Your task to perform on an android device: turn on showing notifications on the lock screen Image 0: 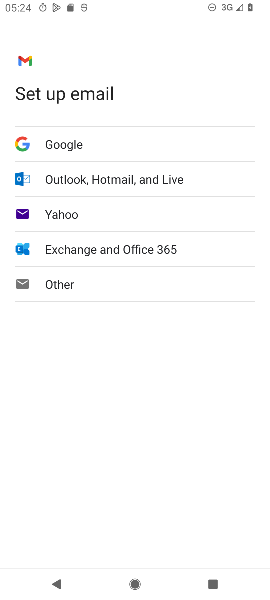
Step 0: press home button
Your task to perform on an android device: turn on showing notifications on the lock screen Image 1: 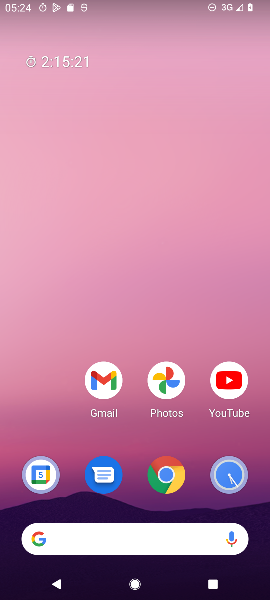
Step 1: drag from (64, 436) to (50, 234)
Your task to perform on an android device: turn on showing notifications on the lock screen Image 2: 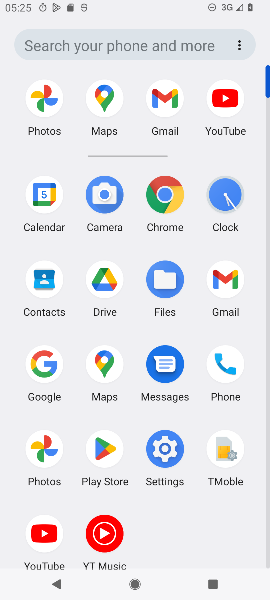
Step 2: click (165, 448)
Your task to perform on an android device: turn on showing notifications on the lock screen Image 3: 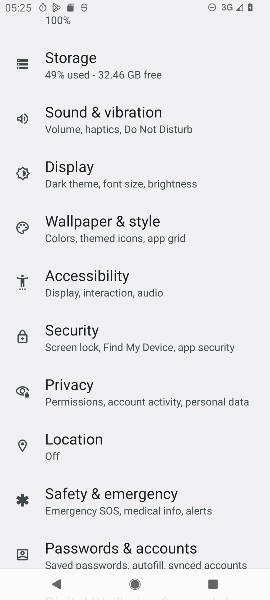
Step 3: drag from (227, 186) to (240, 289)
Your task to perform on an android device: turn on showing notifications on the lock screen Image 4: 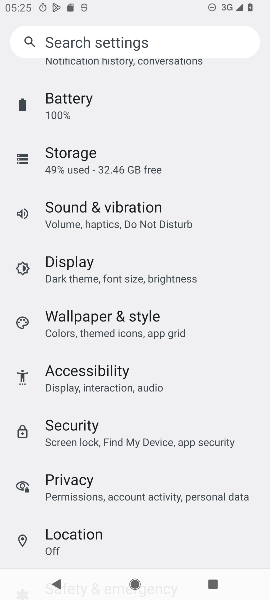
Step 4: drag from (227, 149) to (234, 254)
Your task to perform on an android device: turn on showing notifications on the lock screen Image 5: 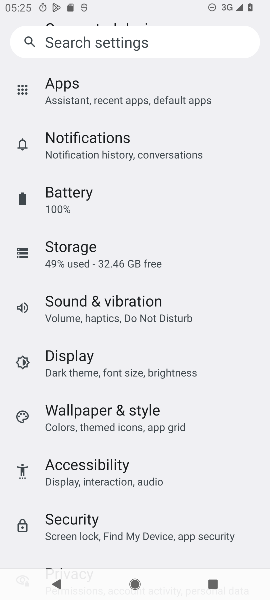
Step 5: drag from (232, 162) to (226, 253)
Your task to perform on an android device: turn on showing notifications on the lock screen Image 6: 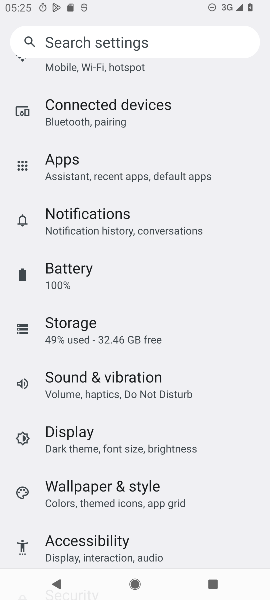
Step 6: drag from (229, 123) to (234, 224)
Your task to perform on an android device: turn on showing notifications on the lock screen Image 7: 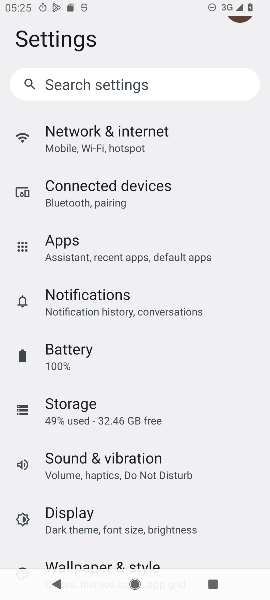
Step 7: drag from (242, 122) to (242, 291)
Your task to perform on an android device: turn on showing notifications on the lock screen Image 8: 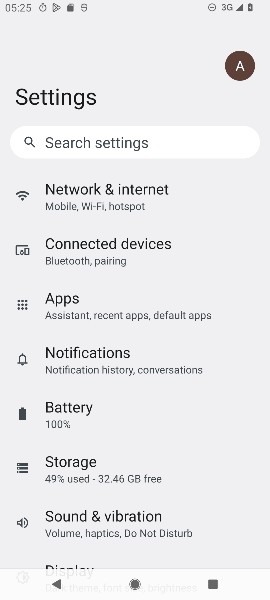
Step 8: click (116, 353)
Your task to perform on an android device: turn on showing notifications on the lock screen Image 9: 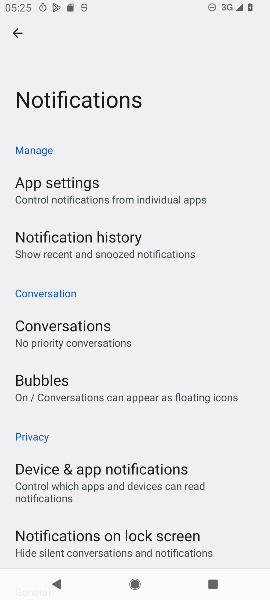
Step 9: drag from (215, 353) to (222, 256)
Your task to perform on an android device: turn on showing notifications on the lock screen Image 10: 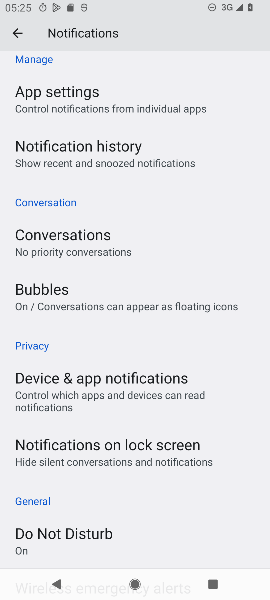
Step 10: drag from (234, 405) to (237, 341)
Your task to perform on an android device: turn on showing notifications on the lock screen Image 11: 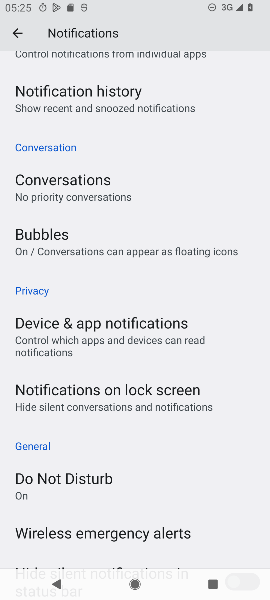
Step 11: drag from (218, 447) to (224, 345)
Your task to perform on an android device: turn on showing notifications on the lock screen Image 12: 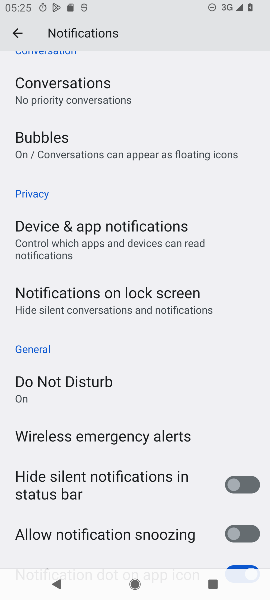
Step 12: drag from (208, 410) to (217, 327)
Your task to perform on an android device: turn on showing notifications on the lock screen Image 13: 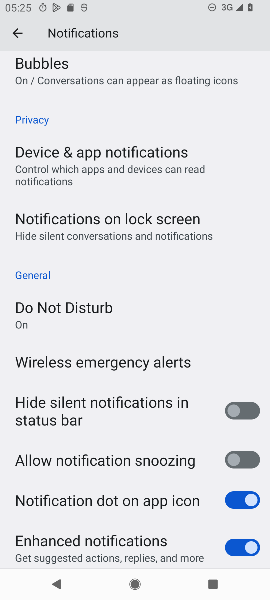
Step 13: click (177, 234)
Your task to perform on an android device: turn on showing notifications on the lock screen Image 14: 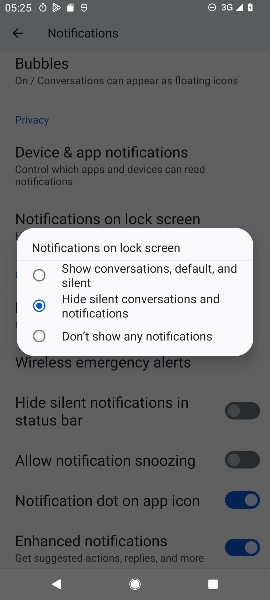
Step 14: click (140, 262)
Your task to perform on an android device: turn on showing notifications on the lock screen Image 15: 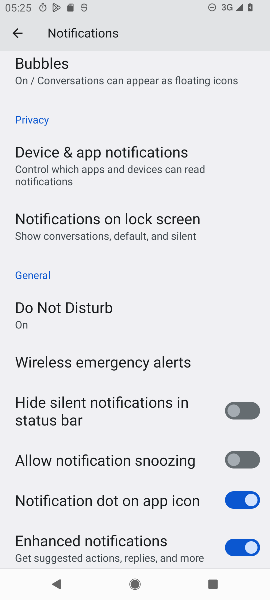
Step 15: task complete